Your task to perform on an android device: change notifications settings Image 0: 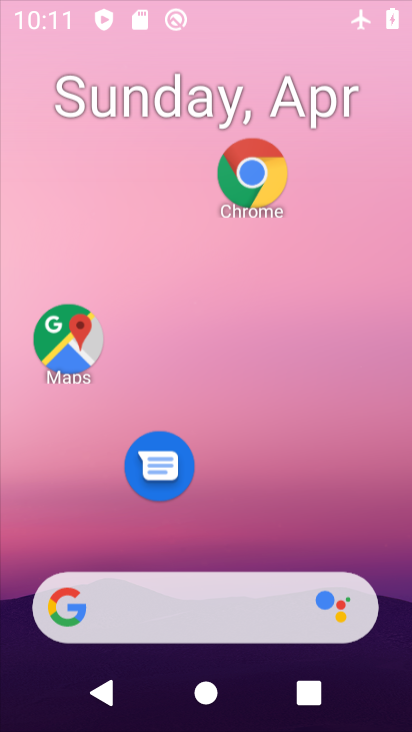
Step 0: click (365, 14)
Your task to perform on an android device: change notifications settings Image 1: 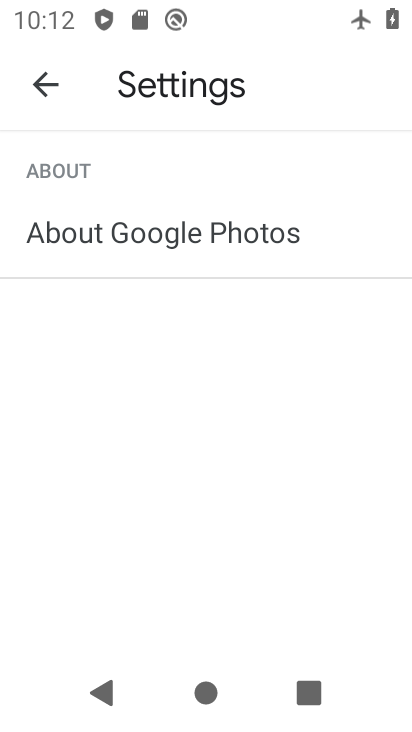
Step 1: press home button
Your task to perform on an android device: change notifications settings Image 2: 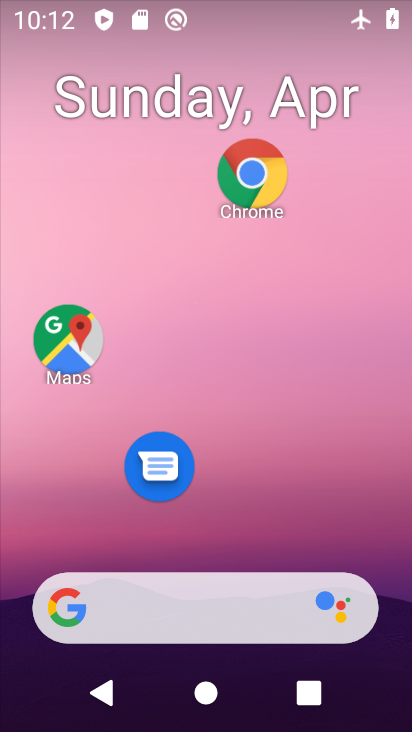
Step 2: drag from (409, 387) to (411, 126)
Your task to perform on an android device: change notifications settings Image 3: 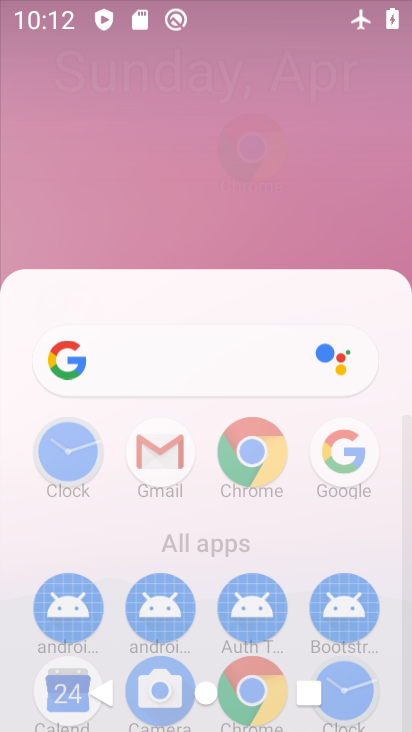
Step 3: drag from (390, 434) to (395, 99)
Your task to perform on an android device: change notifications settings Image 4: 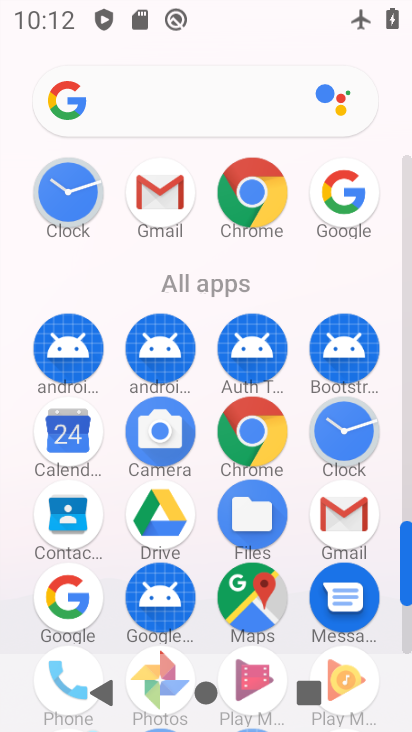
Step 4: drag from (386, 421) to (398, 148)
Your task to perform on an android device: change notifications settings Image 5: 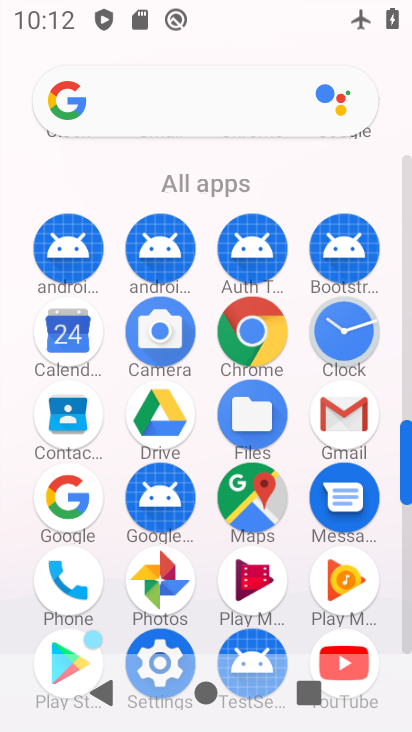
Step 5: drag from (377, 546) to (411, 135)
Your task to perform on an android device: change notifications settings Image 6: 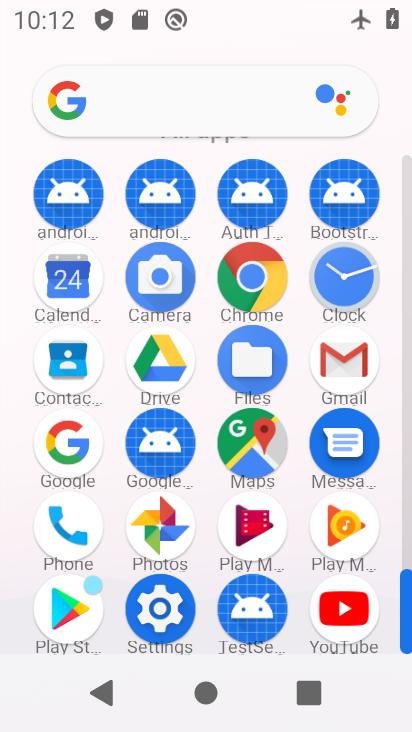
Step 6: click (188, 595)
Your task to perform on an android device: change notifications settings Image 7: 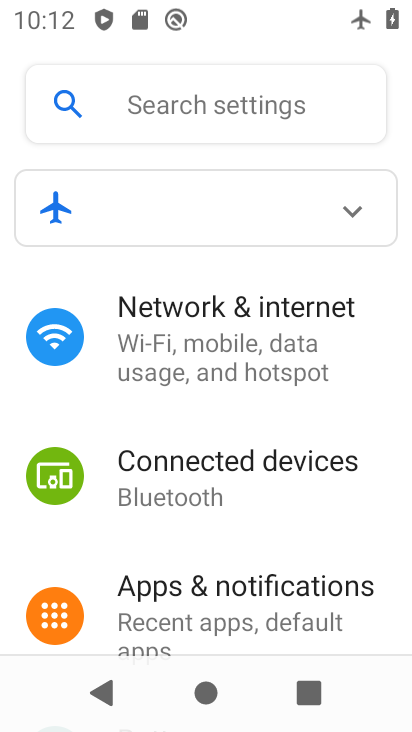
Step 7: drag from (175, 598) to (234, 196)
Your task to perform on an android device: change notifications settings Image 8: 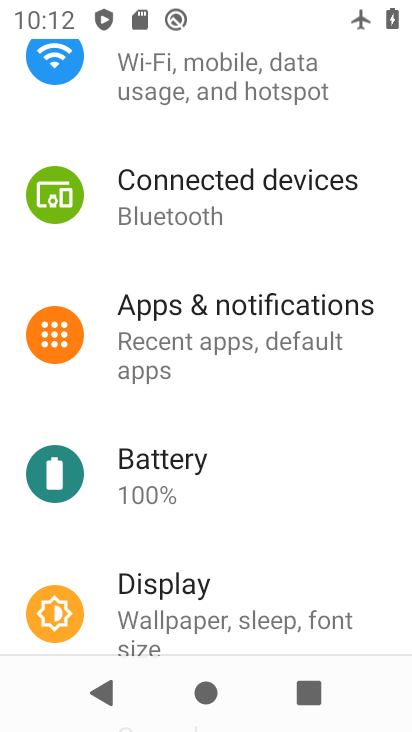
Step 8: click (288, 332)
Your task to perform on an android device: change notifications settings Image 9: 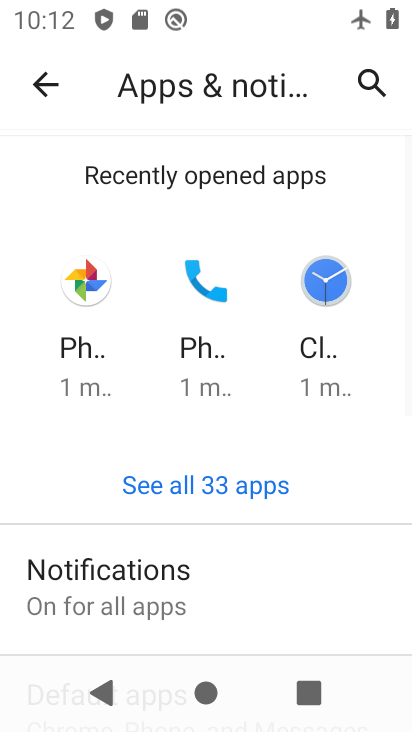
Step 9: drag from (275, 571) to (343, 172)
Your task to perform on an android device: change notifications settings Image 10: 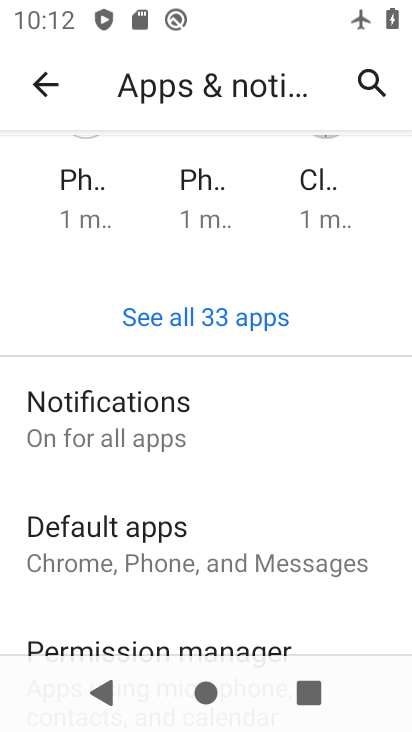
Step 10: click (75, 405)
Your task to perform on an android device: change notifications settings Image 11: 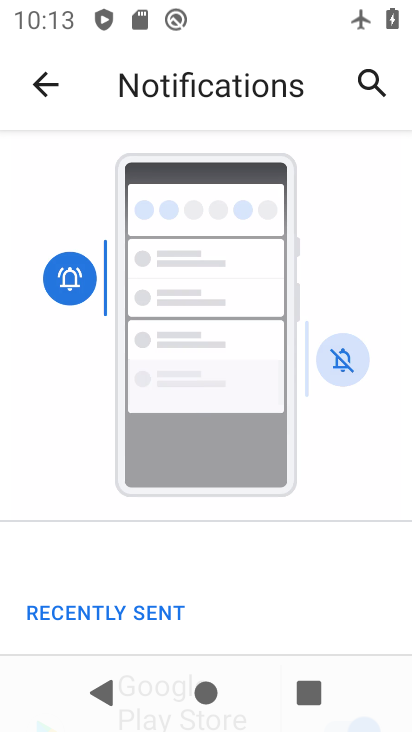
Step 11: drag from (146, 574) to (282, 284)
Your task to perform on an android device: change notifications settings Image 12: 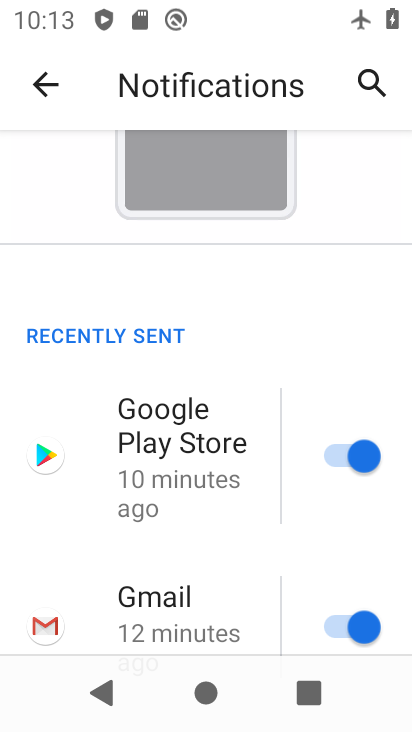
Step 12: drag from (263, 411) to (292, 158)
Your task to perform on an android device: change notifications settings Image 13: 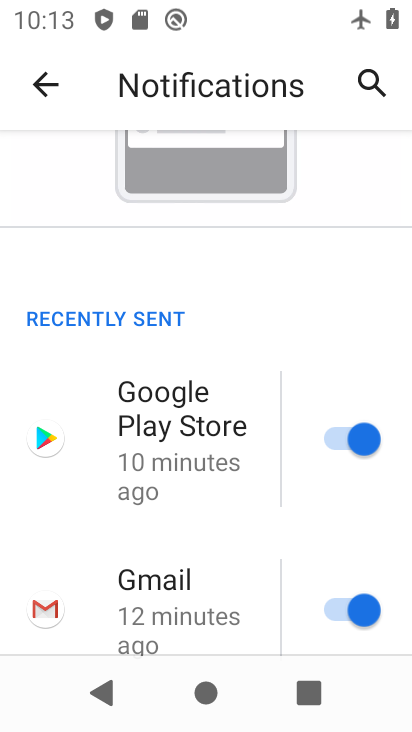
Step 13: click (346, 439)
Your task to perform on an android device: change notifications settings Image 14: 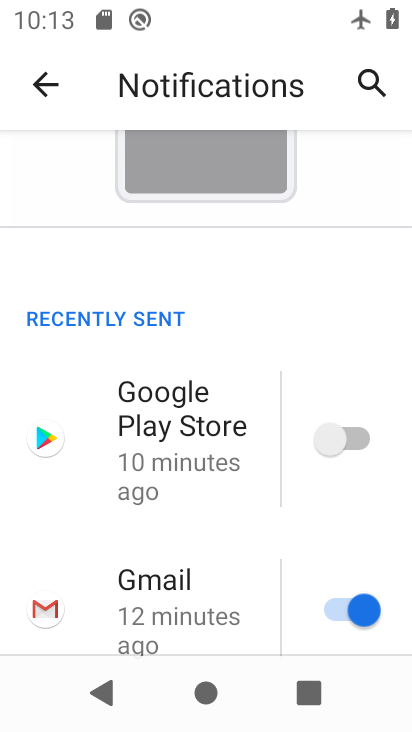
Step 14: task complete